Your task to perform on an android device: turn off notifications in google photos Image 0: 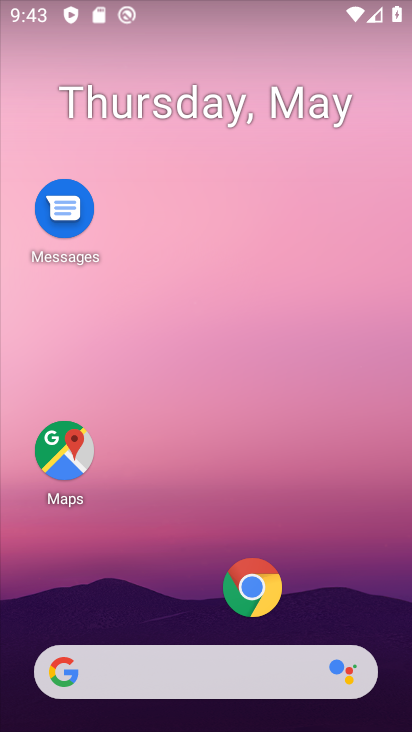
Step 0: drag from (166, 630) to (157, 19)
Your task to perform on an android device: turn off notifications in google photos Image 1: 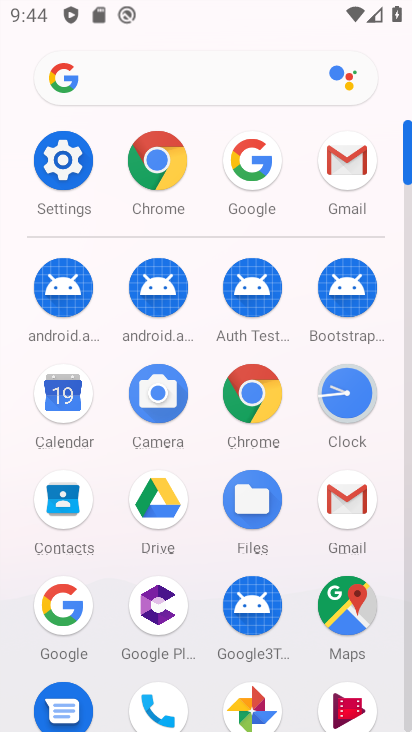
Step 1: click (257, 707)
Your task to perform on an android device: turn off notifications in google photos Image 2: 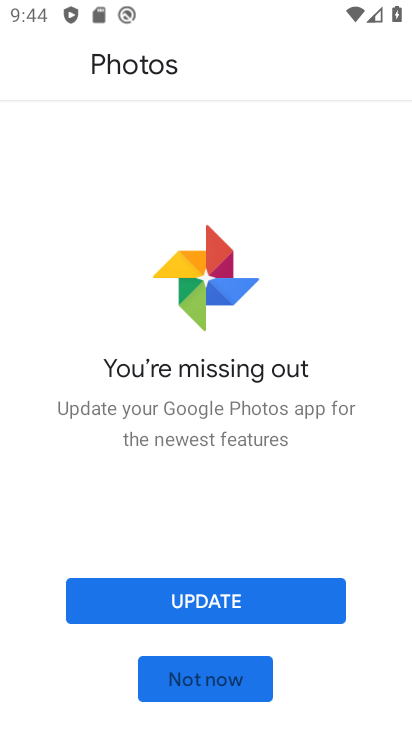
Step 2: click (160, 668)
Your task to perform on an android device: turn off notifications in google photos Image 3: 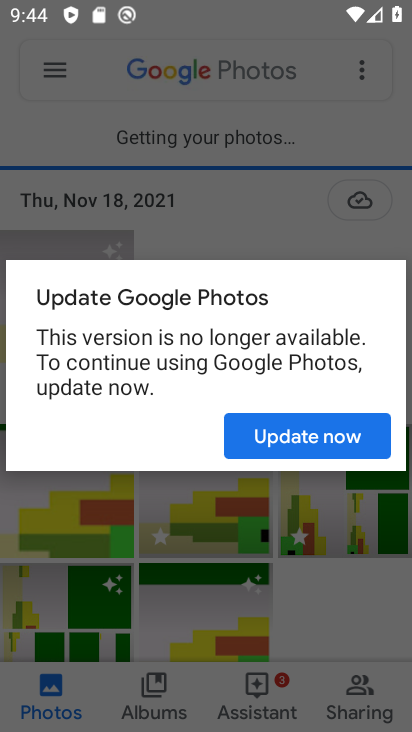
Step 3: click (314, 439)
Your task to perform on an android device: turn off notifications in google photos Image 4: 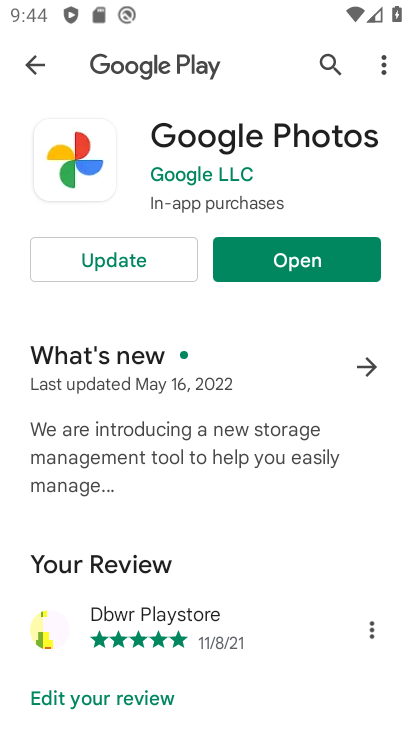
Step 4: click (309, 258)
Your task to perform on an android device: turn off notifications in google photos Image 5: 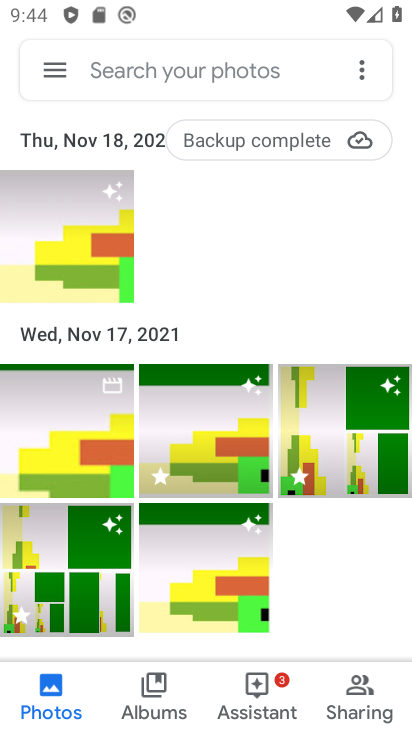
Step 5: click (53, 57)
Your task to perform on an android device: turn off notifications in google photos Image 6: 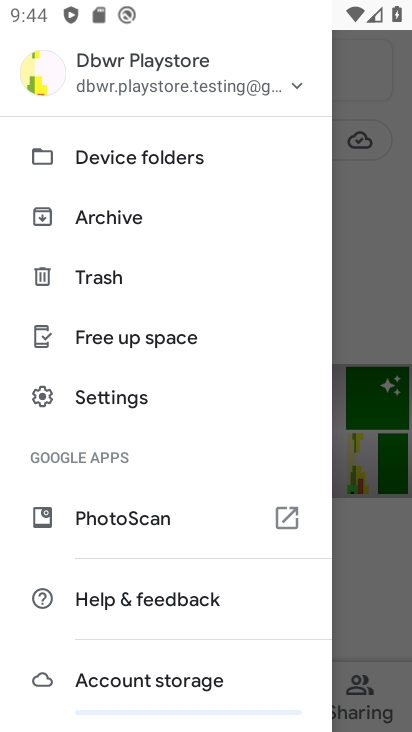
Step 6: click (93, 409)
Your task to perform on an android device: turn off notifications in google photos Image 7: 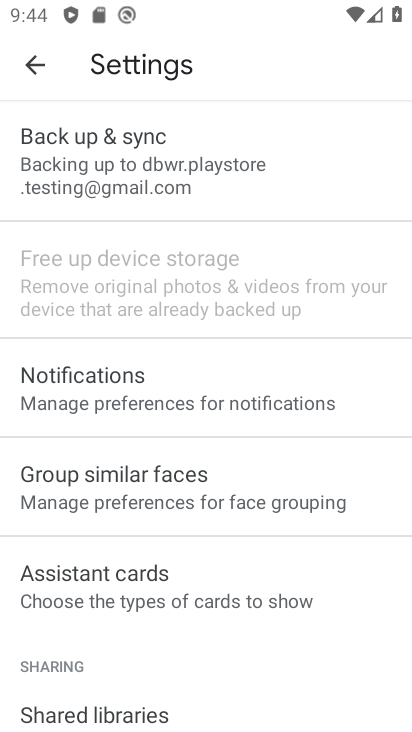
Step 7: click (150, 391)
Your task to perform on an android device: turn off notifications in google photos Image 8: 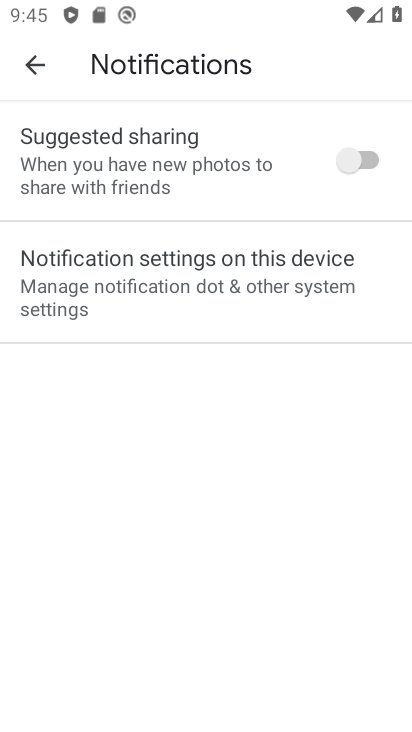
Step 8: click (161, 279)
Your task to perform on an android device: turn off notifications in google photos Image 9: 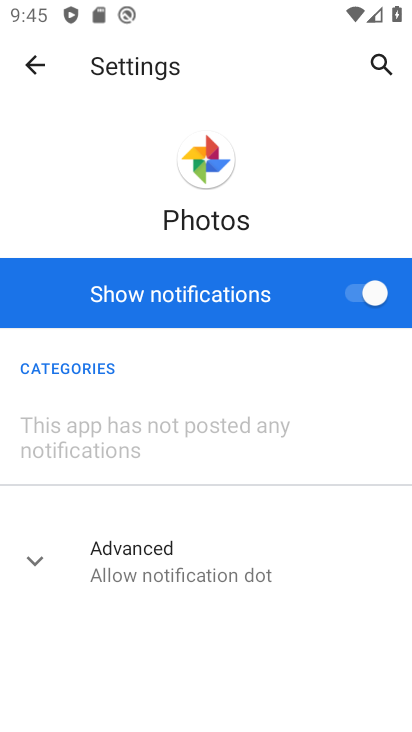
Step 9: click (360, 282)
Your task to perform on an android device: turn off notifications in google photos Image 10: 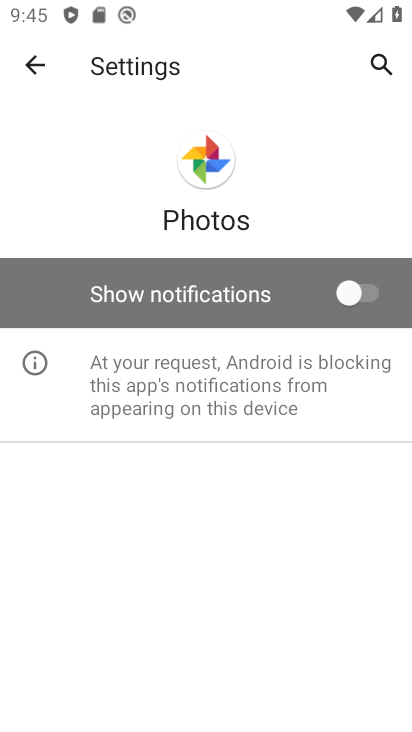
Step 10: task complete